Your task to perform on an android device: read, delete, or share a saved page in the chrome app Image 0: 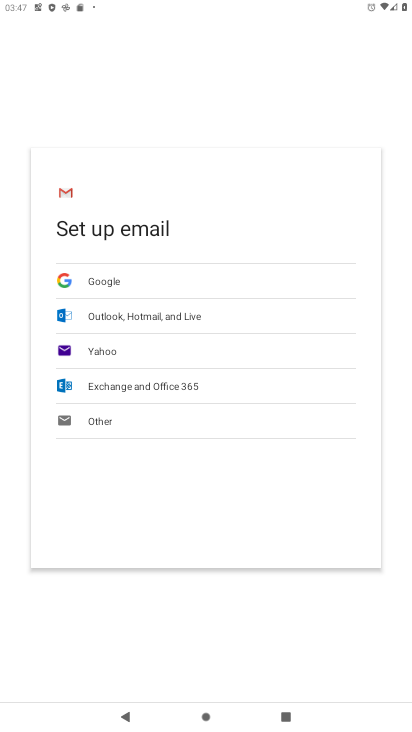
Step 0: press home button
Your task to perform on an android device: read, delete, or share a saved page in the chrome app Image 1: 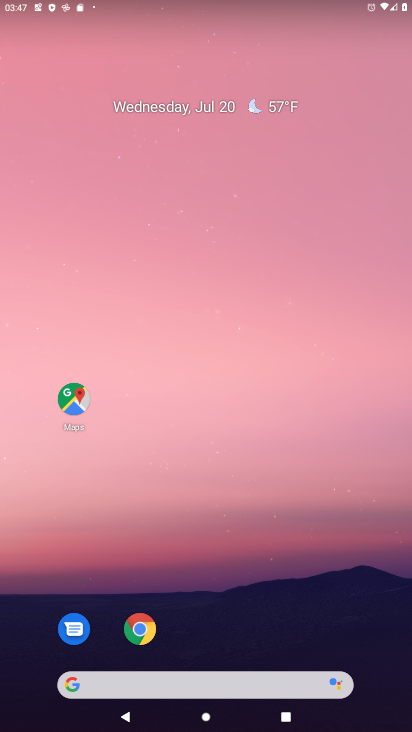
Step 1: click (138, 630)
Your task to perform on an android device: read, delete, or share a saved page in the chrome app Image 2: 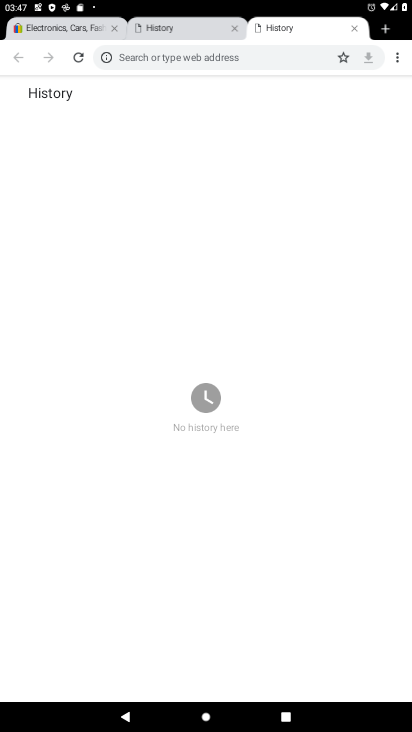
Step 2: click (397, 61)
Your task to perform on an android device: read, delete, or share a saved page in the chrome app Image 3: 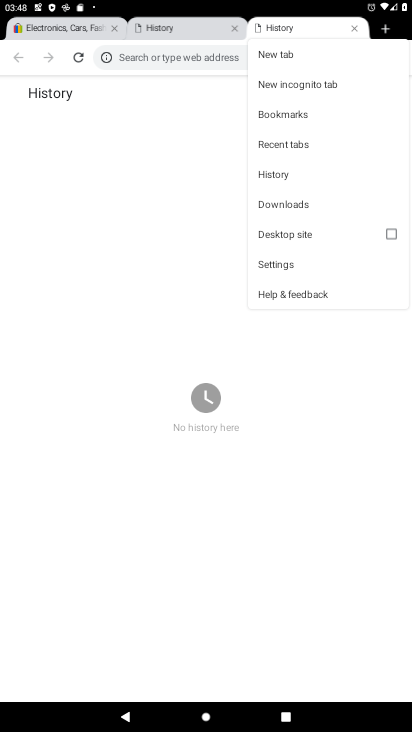
Step 3: click (279, 199)
Your task to perform on an android device: read, delete, or share a saved page in the chrome app Image 4: 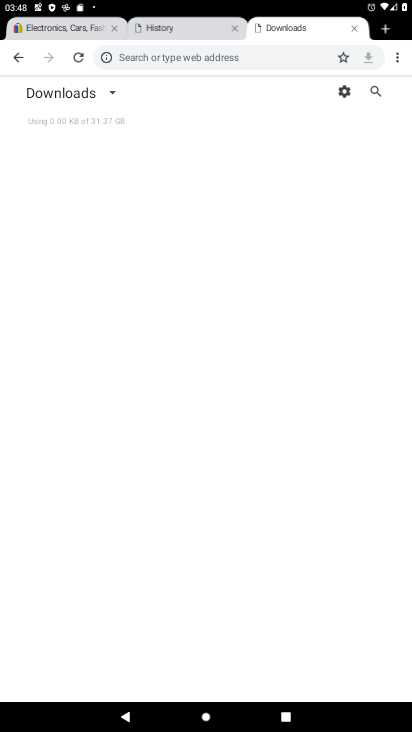
Step 4: click (106, 92)
Your task to perform on an android device: read, delete, or share a saved page in the chrome app Image 5: 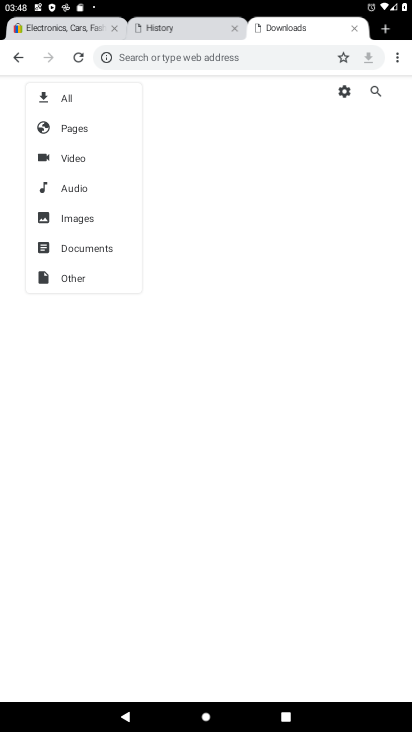
Step 5: click (67, 120)
Your task to perform on an android device: read, delete, or share a saved page in the chrome app Image 6: 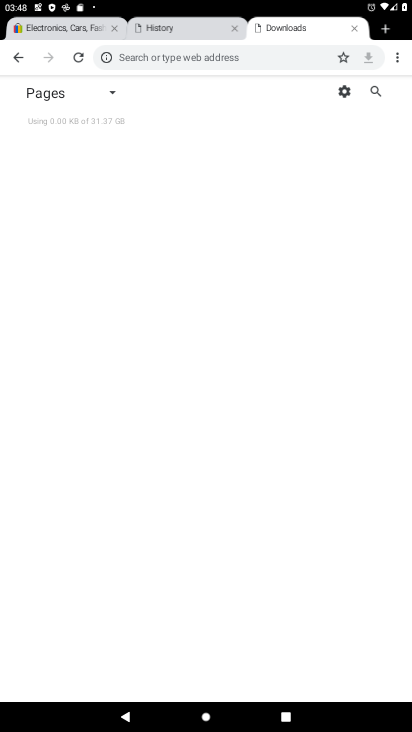
Step 6: task complete